Your task to perform on an android device: Search for seafood restaurants on Google Maps Image 0: 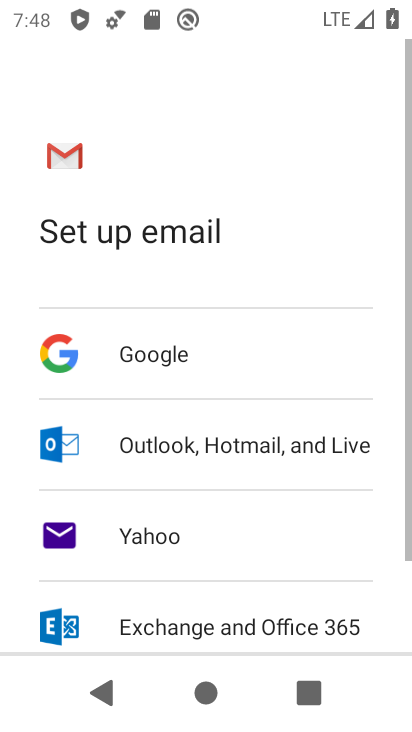
Step 0: press home button
Your task to perform on an android device: Search for seafood restaurants on Google Maps Image 1: 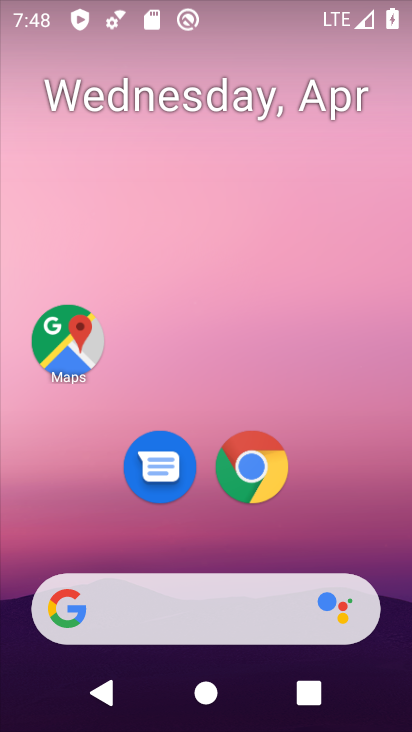
Step 1: click (51, 344)
Your task to perform on an android device: Search for seafood restaurants on Google Maps Image 2: 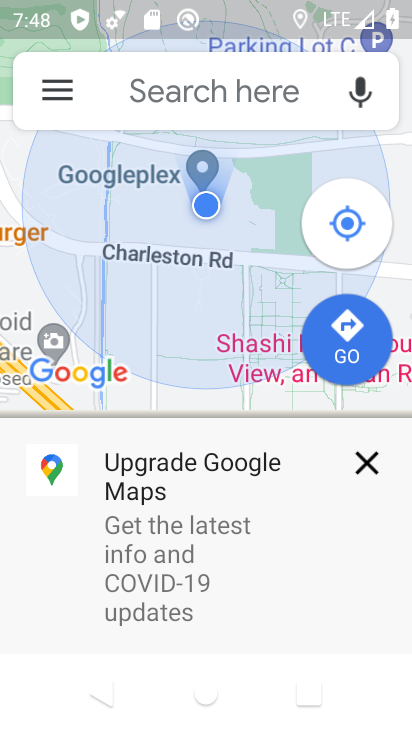
Step 2: click (198, 93)
Your task to perform on an android device: Search for seafood restaurants on Google Maps Image 3: 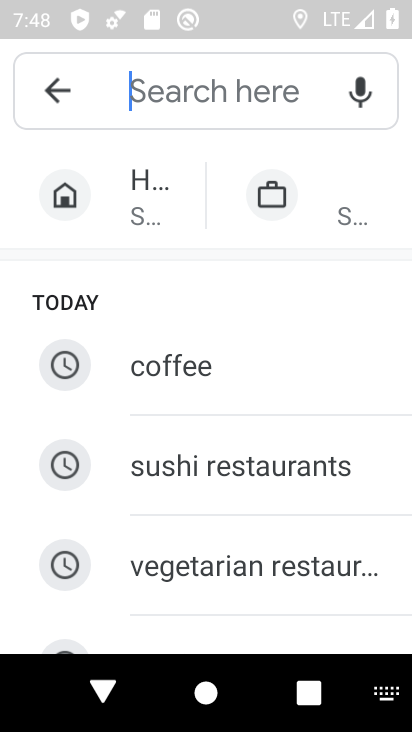
Step 3: drag from (167, 467) to (179, 0)
Your task to perform on an android device: Search for seafood restaurants on Google Maps Image 4: 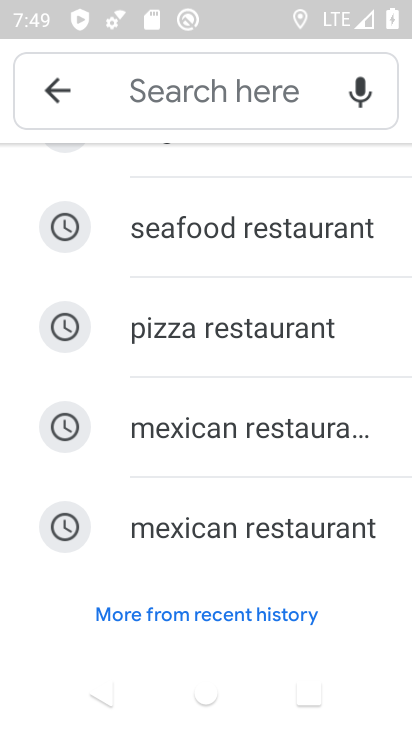
Step 4: click (144, 228)
Your task to perform on an android device: Search for seafood restaurants on Google Maps Image 5: 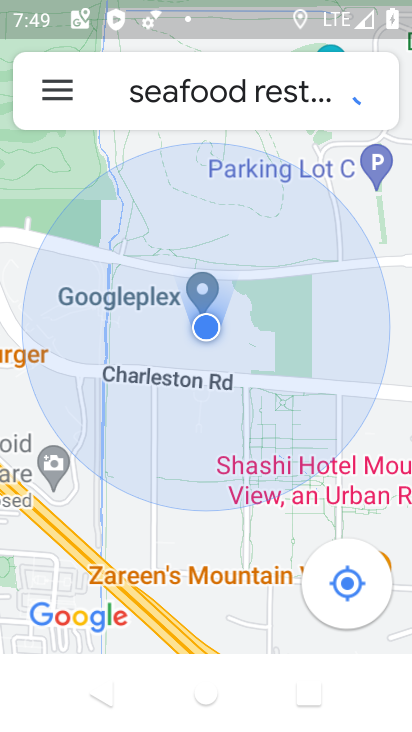
Step 5: task complete